Your task to perform on an android device: Open Google Image 0: 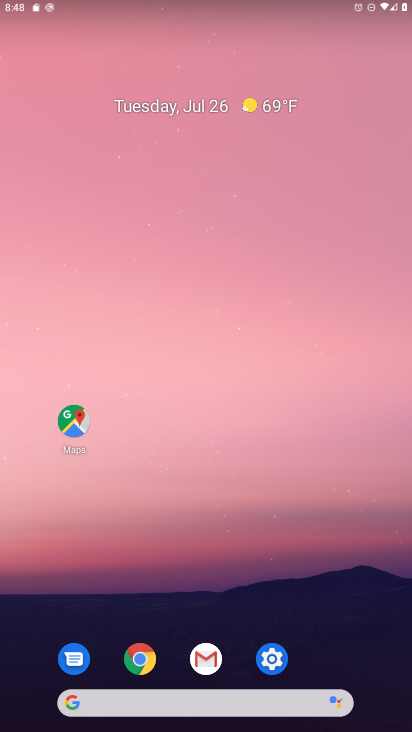
Step 0: click (68, 707)
Your task to perform on an android device: Open Google Image 1: 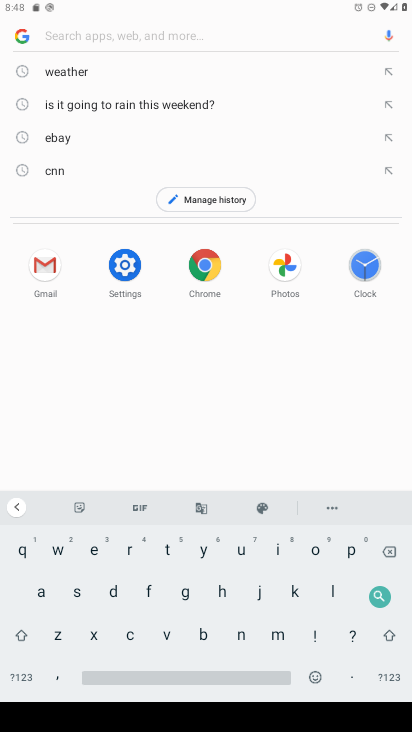
Step 1: click (6, 44)
Your task to perform on an android device: Open Google Image 2: 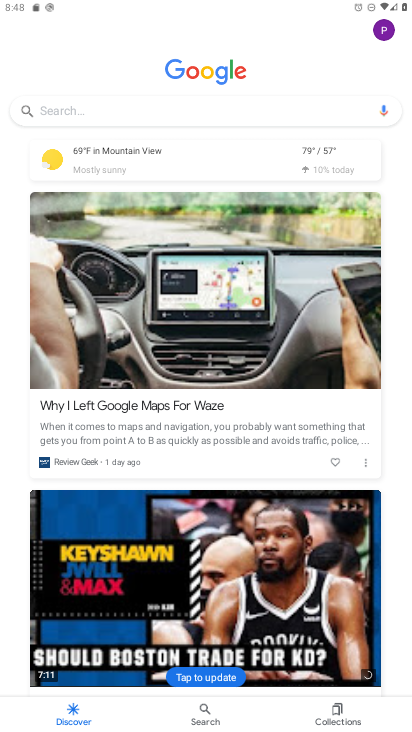
Step 2: task complete